Your task to perform on an android device: open app "The Home Depot" (install if not already installed) and go to login screen Image 0: 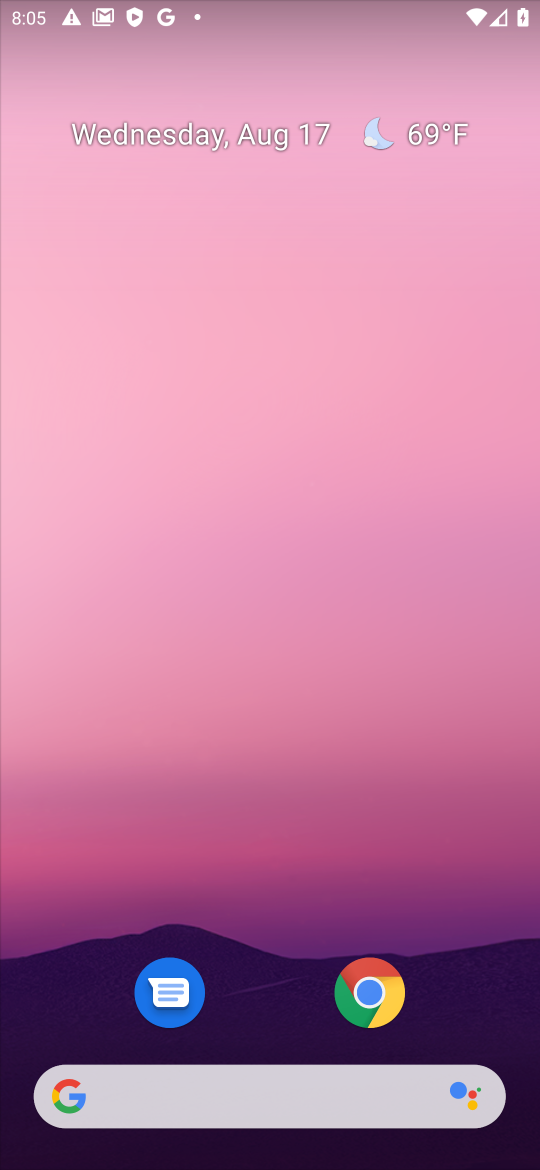
Step 0: drag from (476, 1018) to (203, 5)
Your task to perform on an android device: open app "The Home Depot" (install if not already installed) and go to login screen Image 1: 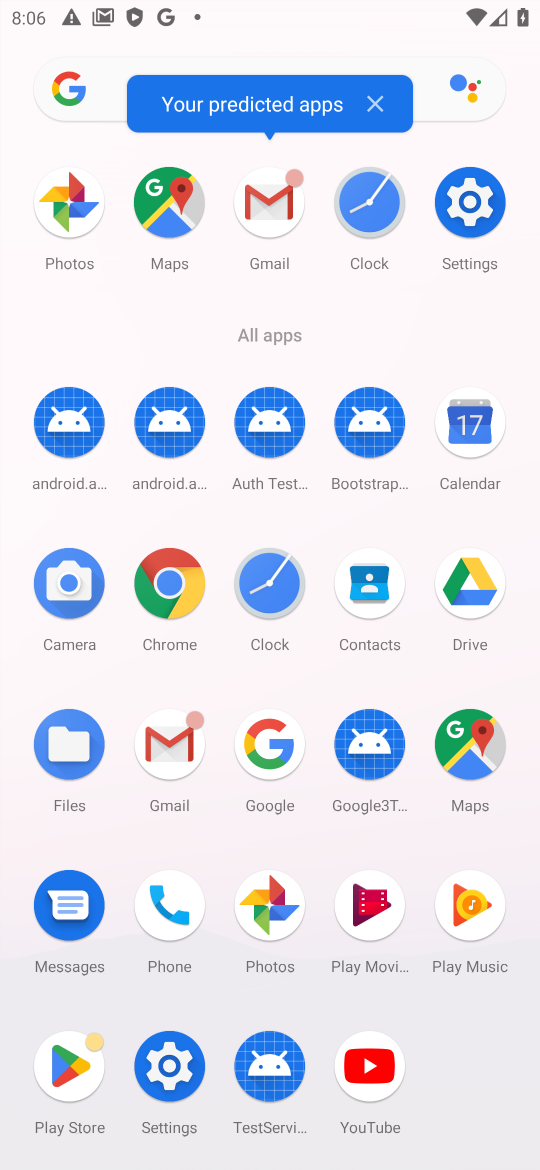
Step 1: click (59, 1053)
Your task to perform on an android device: open app "The Home Depot" (install if not already installed) and go to login screen Image 2: 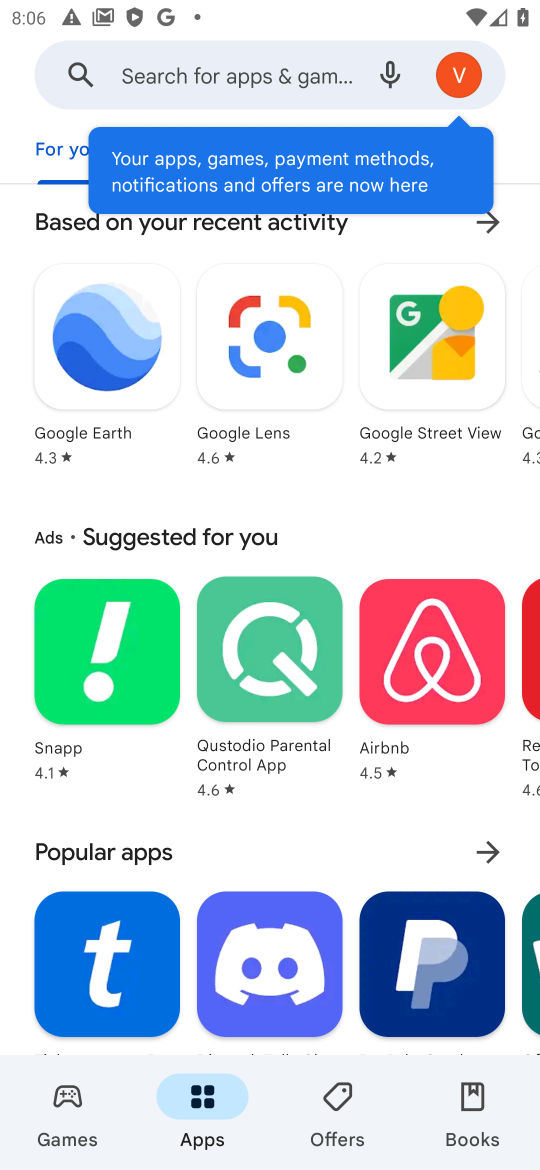
Step 2: click (187, 72)
Your task to perform on an android device: open app "The Home Depot" (install if not already installed) and go to login screen Image 3: 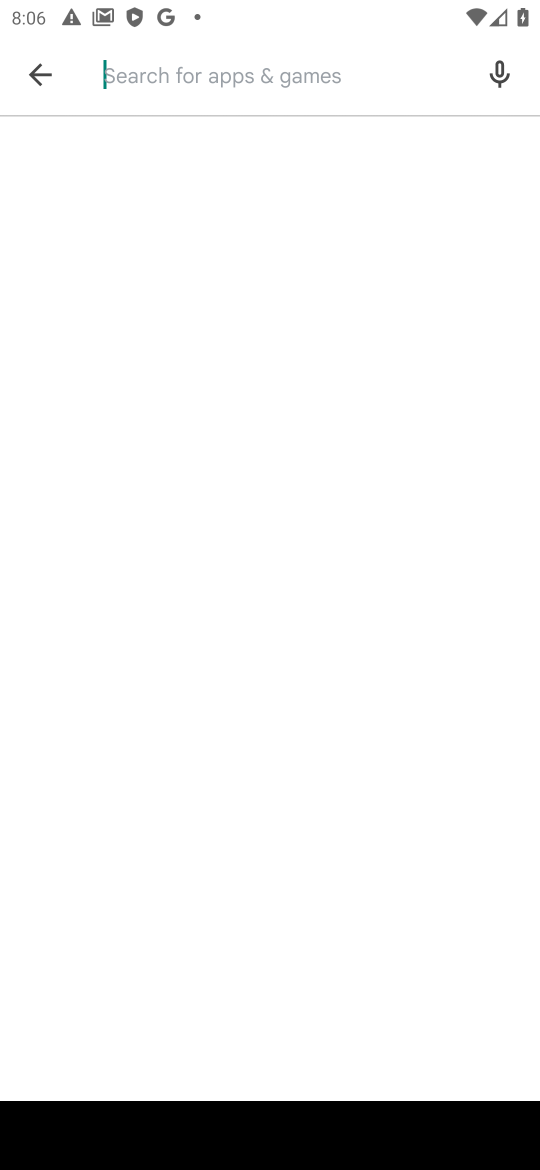
Step 3: type "The Home Depot"
Your task to perform on an android device: open app "The Home Depot" (install if not already installed) and go to login screen Image 4: 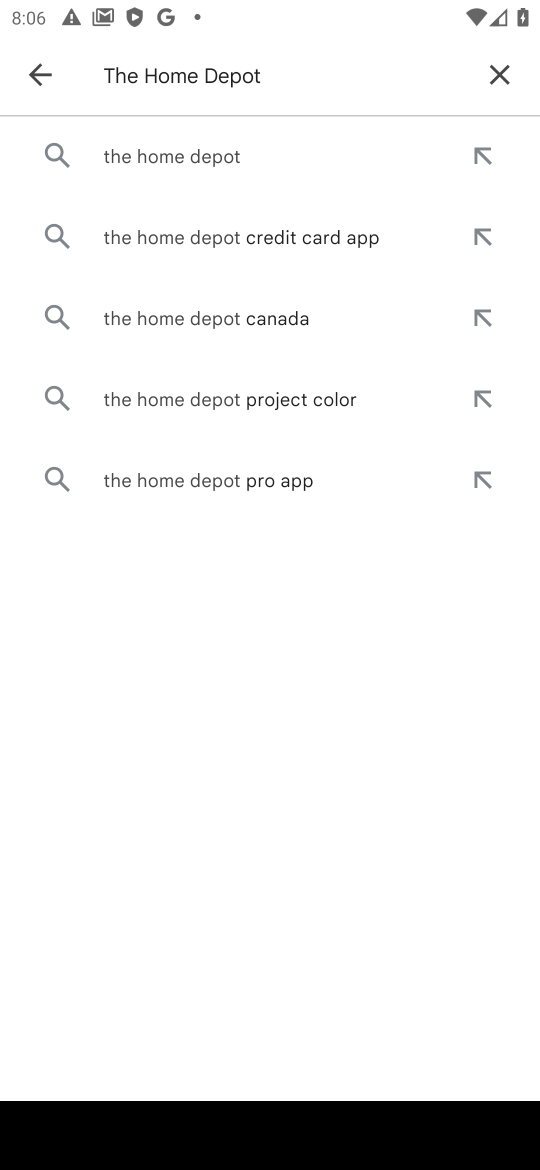
Step 4: click (181, 160)
Your task to perform on an android device: open app "The Home Depot" (install if not already installed) and go to login screen Image 5: 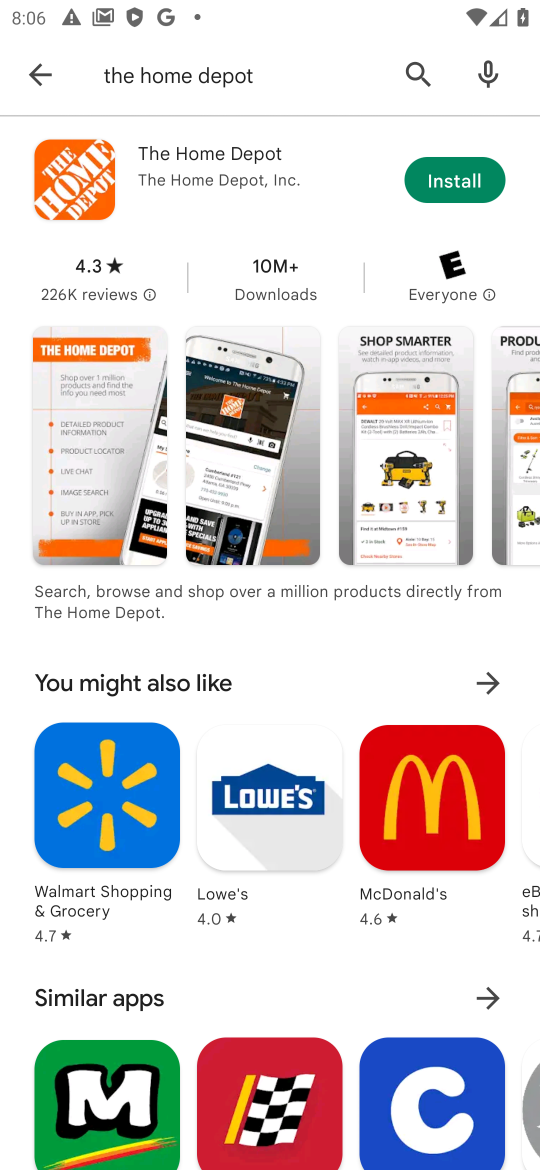
Step 5: task complete